Your task to perform on an android device: turn notification dots off Image 0: 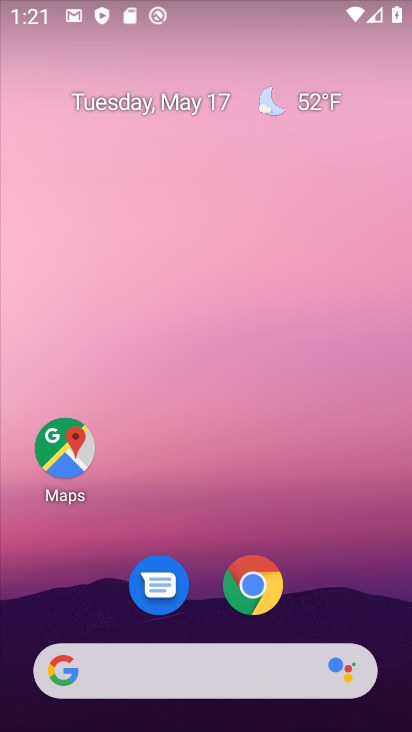
Step 0: drag from (238, 498) to (221, 51)
Your task to perform on an android device: turn notification dots off Image 1: 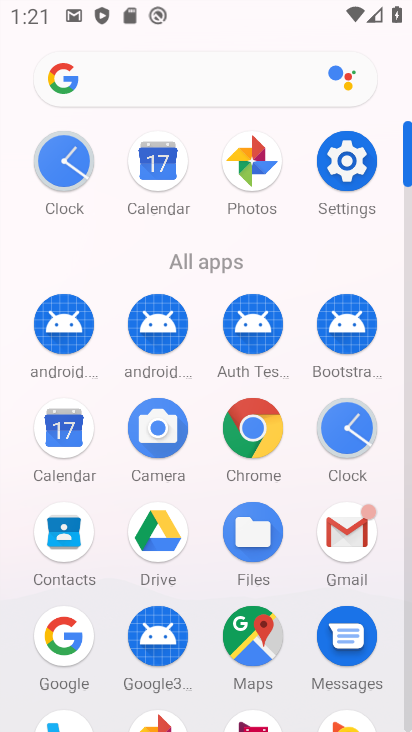
Step 1: click (327, 158)
Your task to perform on an android device: turn notification dots off Image 2: 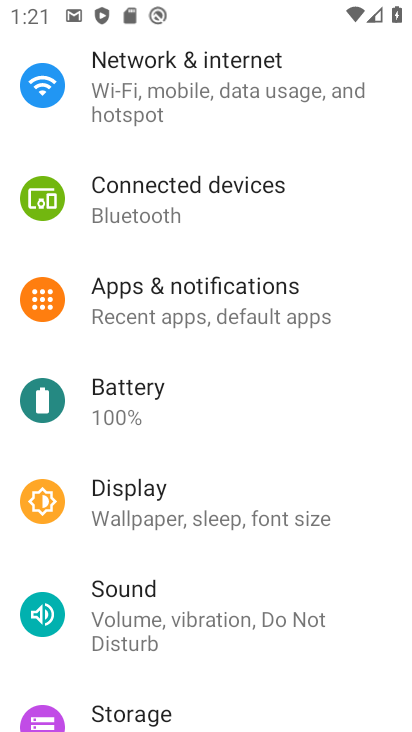
Step 2: click (264, 295)
Your task to perform on an android device: turn notification dots off Image 3: 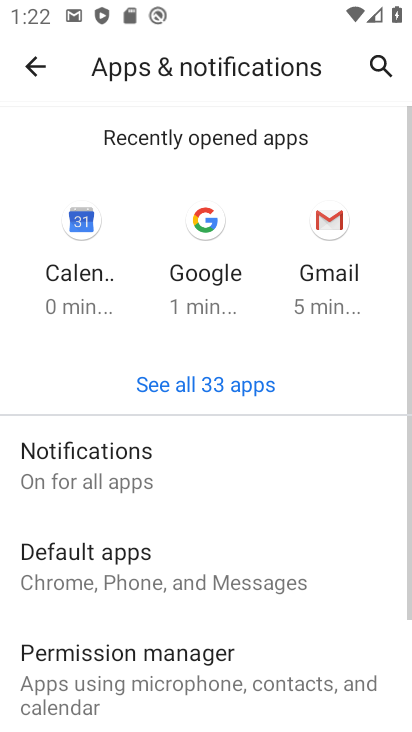
Step 3: click (192, 464)
Your task to perform on an android device: turn notification dots off Image 4: 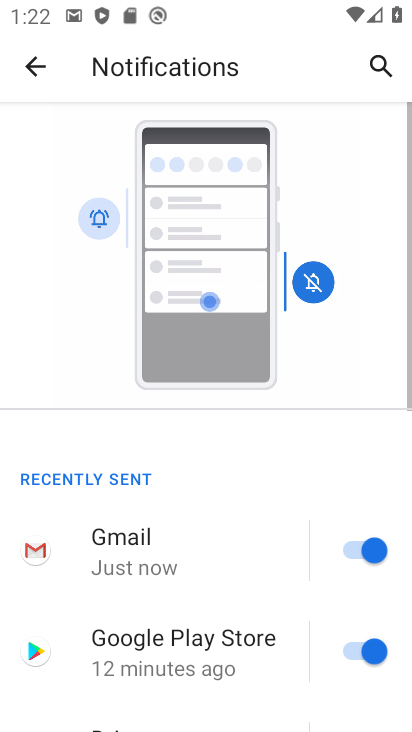
Step 4: drag from (227, 576) to (230, 177)
Your task to perform on an android device: turn notification dots off Image 5: 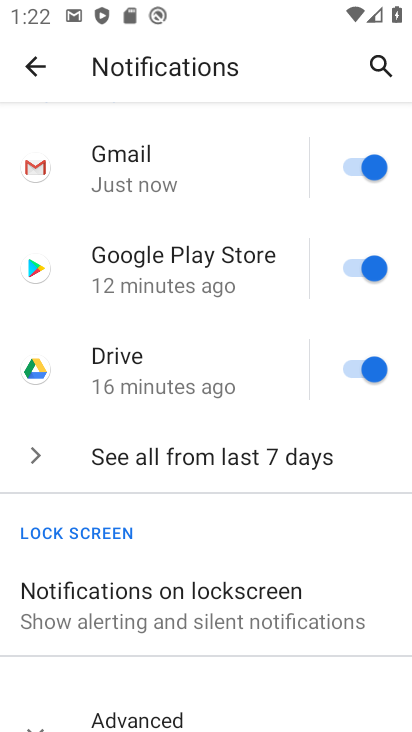
Step 5: drag from (213, 535) to (197, 404)
Your task to perform on an android device: turn notification dots off Image 6: 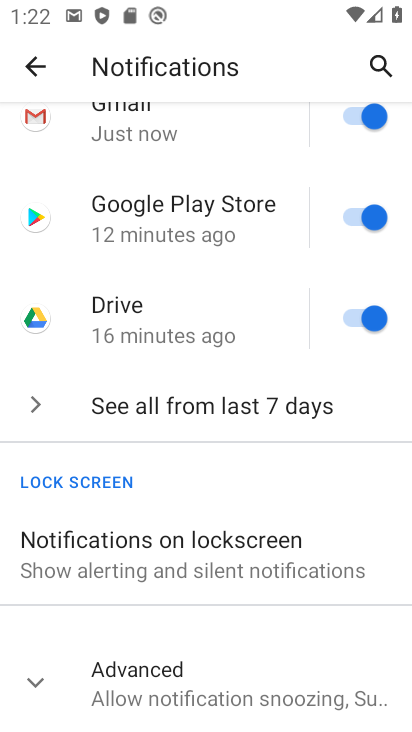
Step 6: click (37, 669)
Your task to perform on an android device: turn notification dots off Image 7: 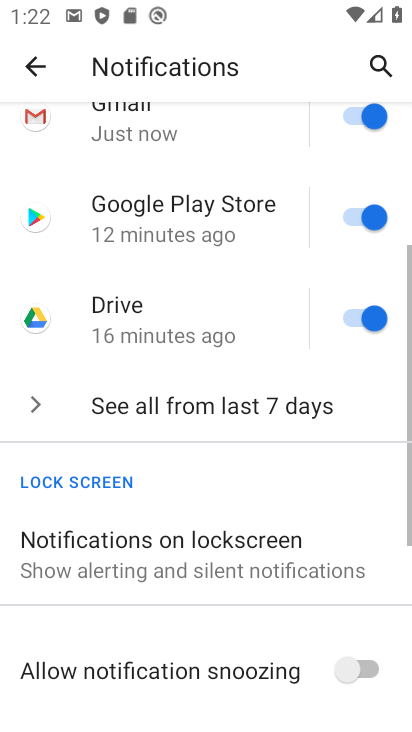
Step 7: drag from (282, 518) to (285, 94)
Your task to perform on an android device: turn notification dots off Image 8: 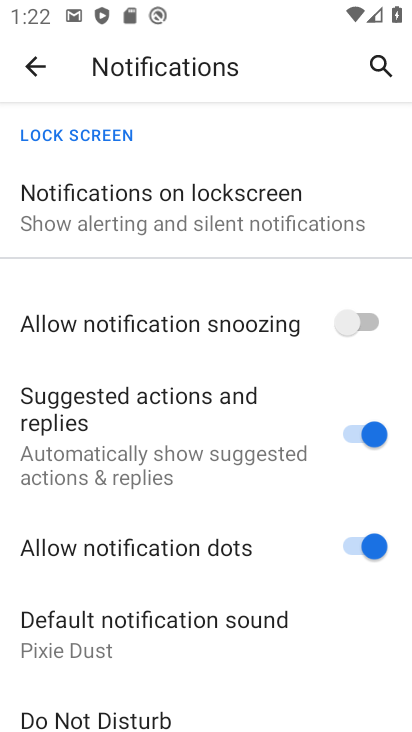
Step 8: click (353, 548)
Your task to perform on an android device: turn notification dots off Image 9: 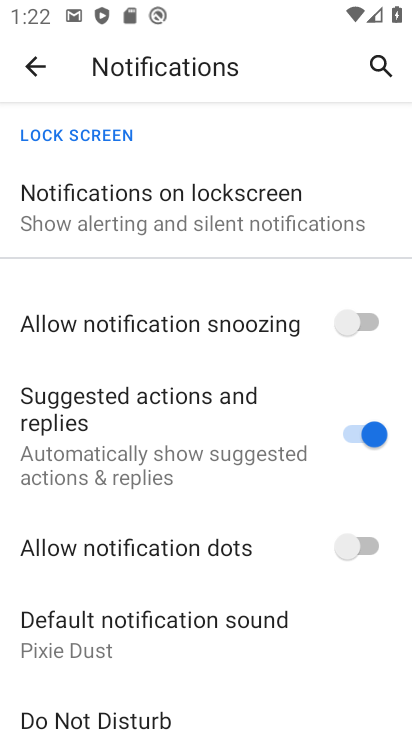
Step 9: task complete